Your task to perform on an android device: add a contact Image 0: 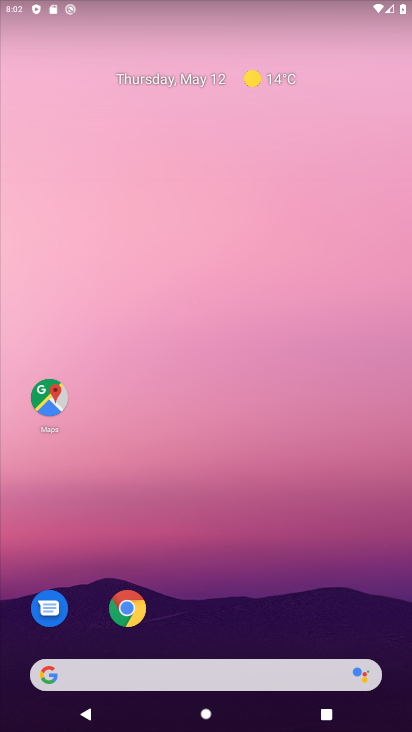
Step 0: drag from (212, 665) to (178, 172)
Your task to perform on an android device: add a contact Image 1: 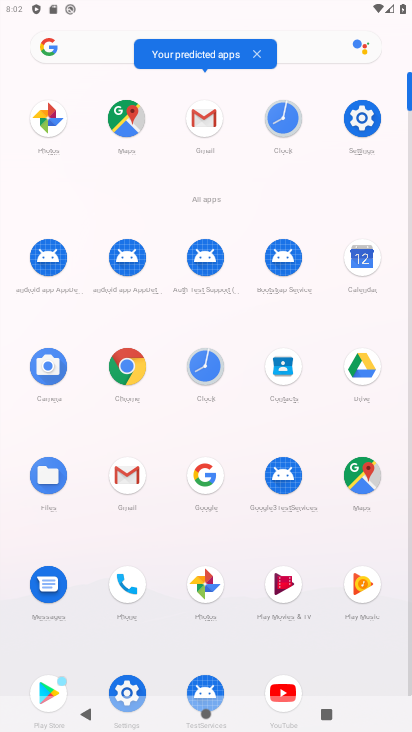
Step 1: click (284, 378)
Your task to perform on an android device: add a contact Image 2: 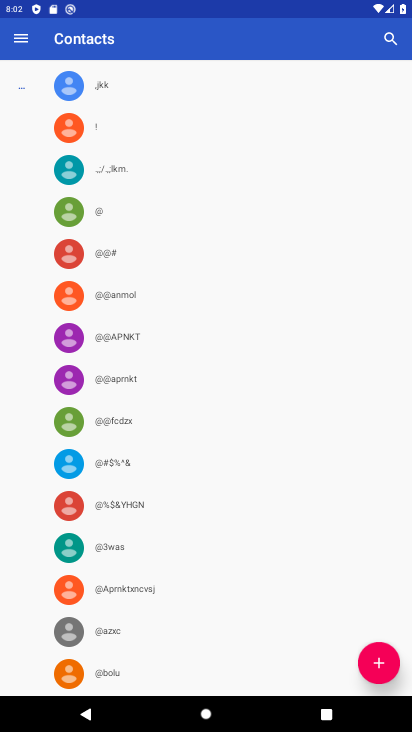
Step 2: click (387, 663)
Your task to perform on an android device: add a contact Image 3: 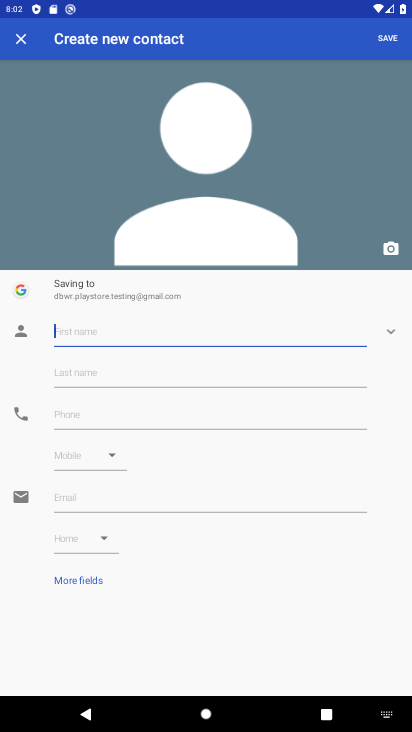
Step 3: type "hiii"
Your task to perform on an android device: add a contact Image 4: 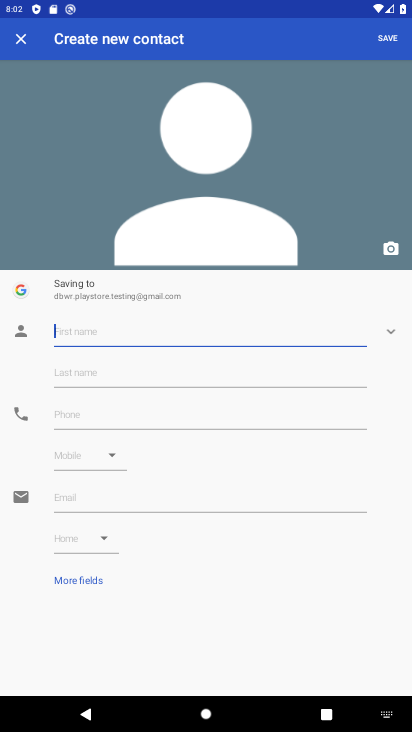
Step 4: click (76, 371)
Your task to perform on an android device: add a contact Image 5: 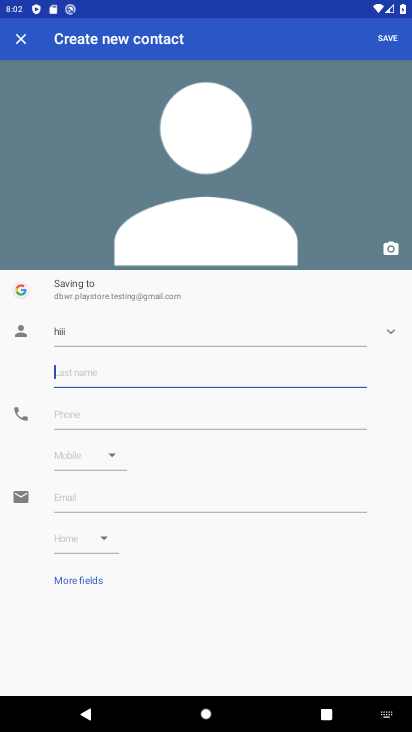
Step 5: type "haaa"
Your task to perform on an android device: add a contact Image 6: 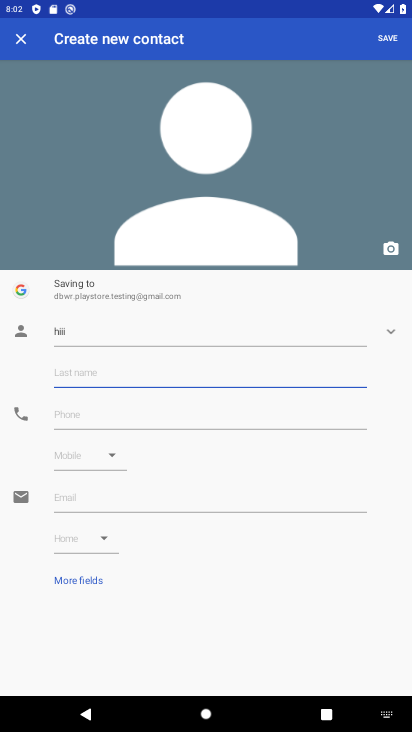
Step 6: click (114, 418)
Your task to perform on an android device: add a contact Image 7: 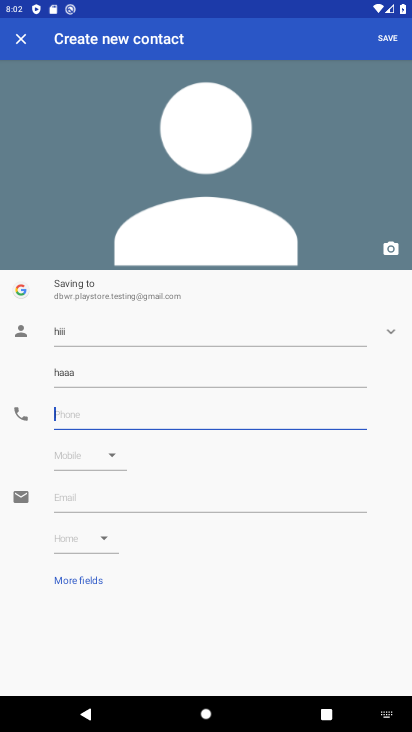
Step 7: type "7676767676"
Your task to perform on an android device: add a contact Image 8: 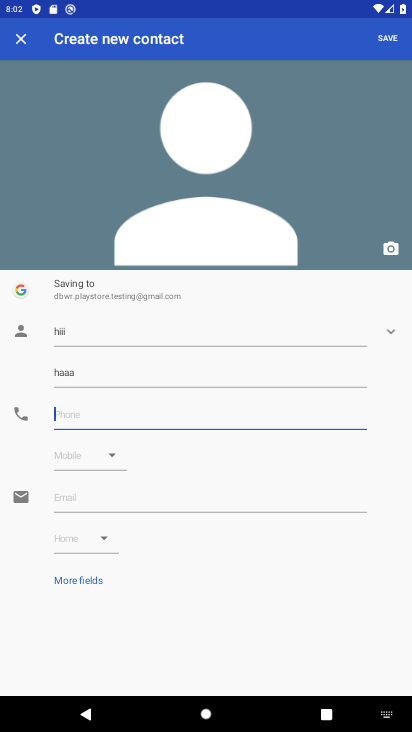
Step 8: click (113, 465)
Your task to perform on an android device: add a contact Image 9: 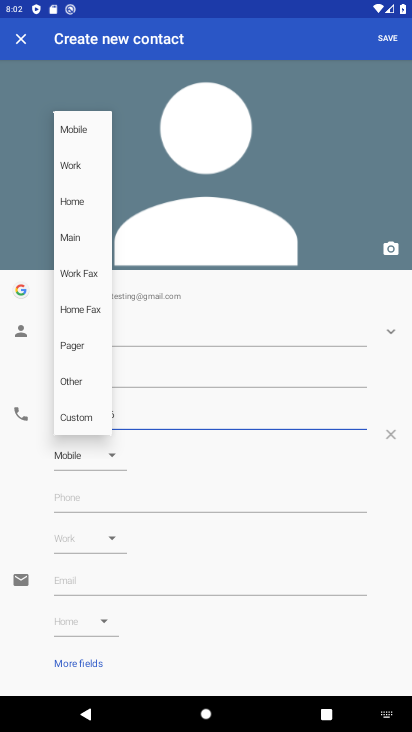
Step 9: click (66, 131)
Your task to perform on an android device: add a contact Image 10: 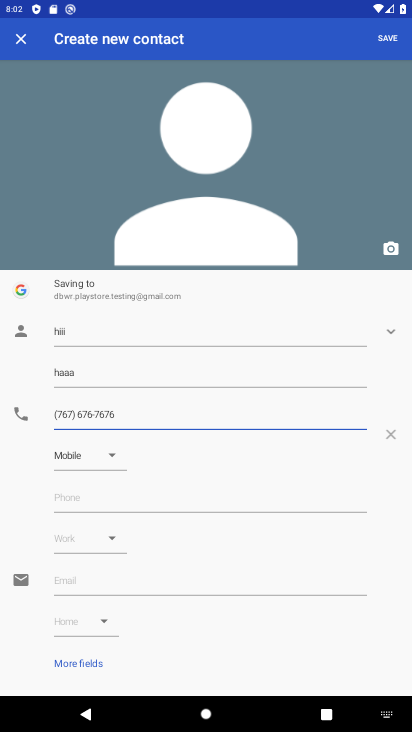
Step 10: click (396, 40)
Your task to perform on an android device: add a contact Image 11: 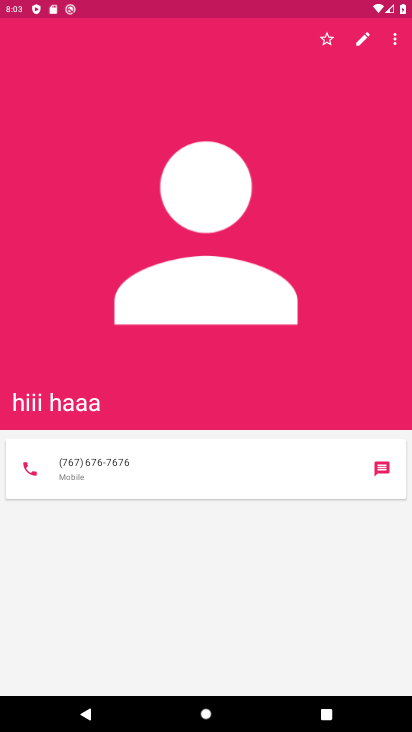
Step 11: task complete